Your task to perform on an android device: Open sound settings Image 0: 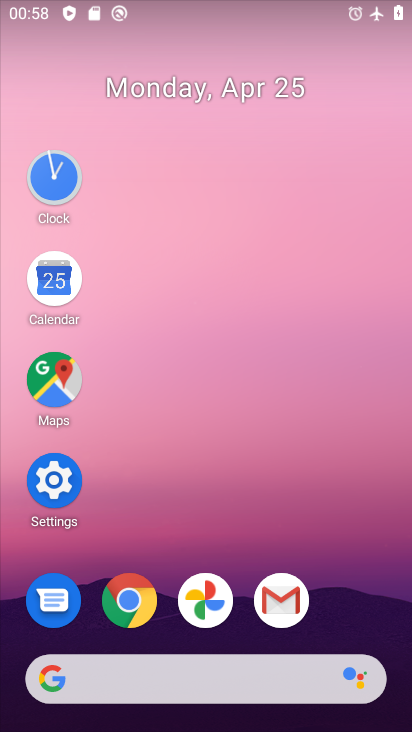
Step 0: click (47, 483)
Your task to perform on an android device: Open sound settings Image 1: 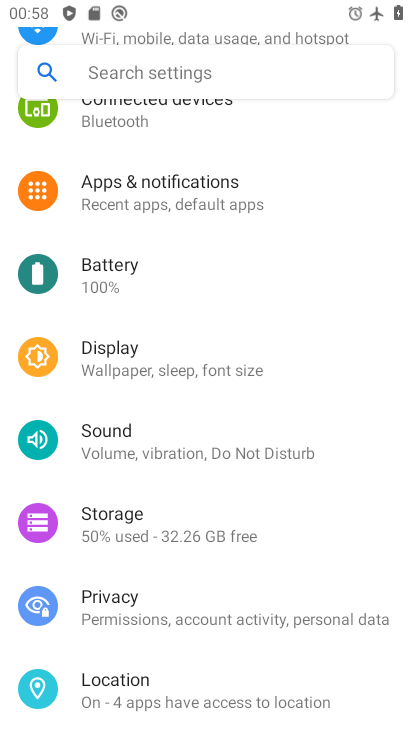
Step 1: click (120, 435)
Your task to perform on an android device: Open sound settings Image 2: 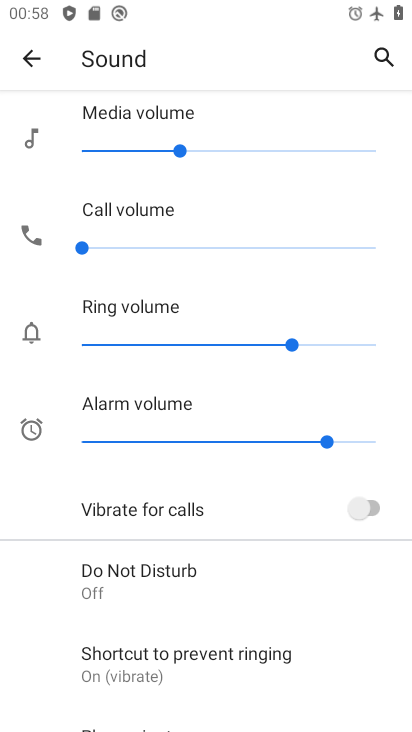
Step 2: task complete